Your task to perform on an android device: Open Google Chrome and click the shortcut for Amazon.com Image 0: 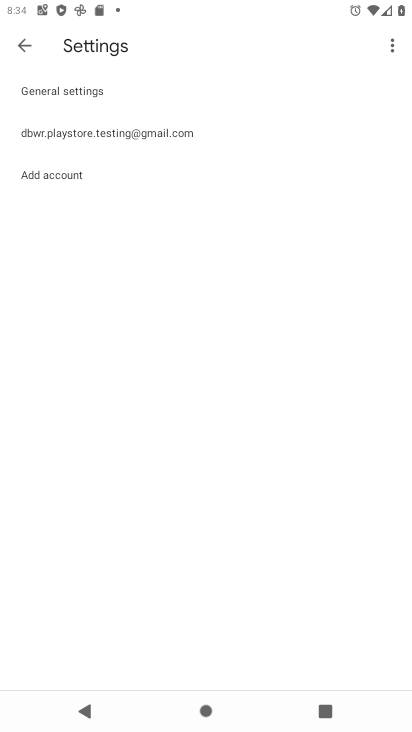
Step 0: press home button
Your task to perform on an android device: Open Google Chrome and click the shortcut for Amazon.com Image 1: 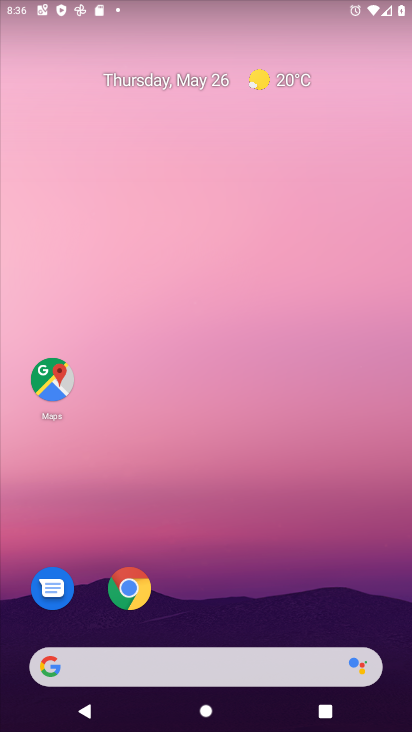
Step 1: drag from (273, 609) to (236, 40)
Your task to perform on an android device: Open Google Chrome and click the shortcut for Amazon.com Image 2: 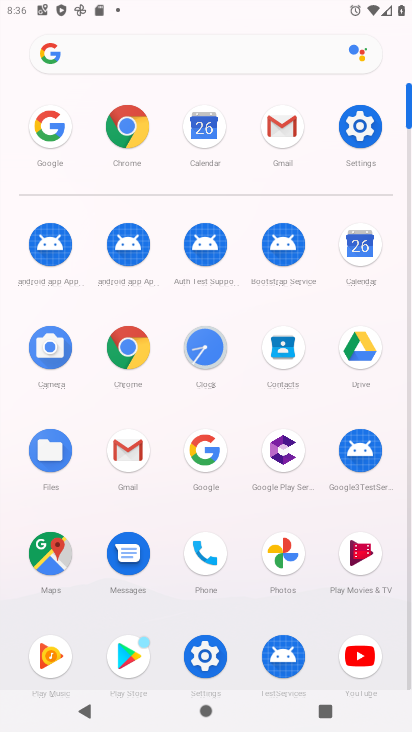
Step 2: click (142, 123)
Your task to perform on an android device: Open Google Chrome and click the shortcut for Amazon.com Image 3: 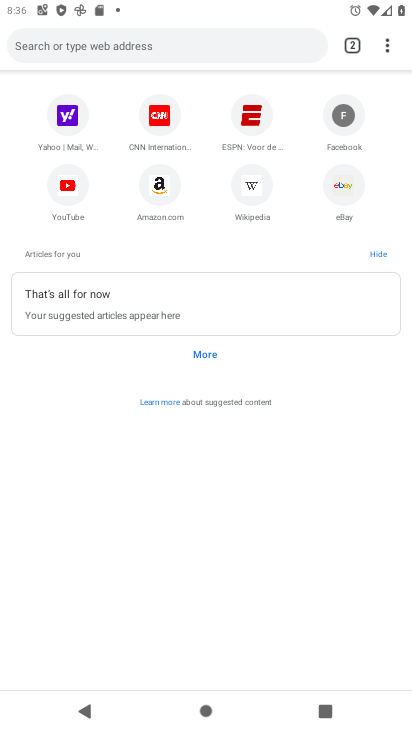
Step 3: click (151, 182)
Your task to perform on an android device: Open Google Chrome and click the shortcut for Amazon.com Image 4: 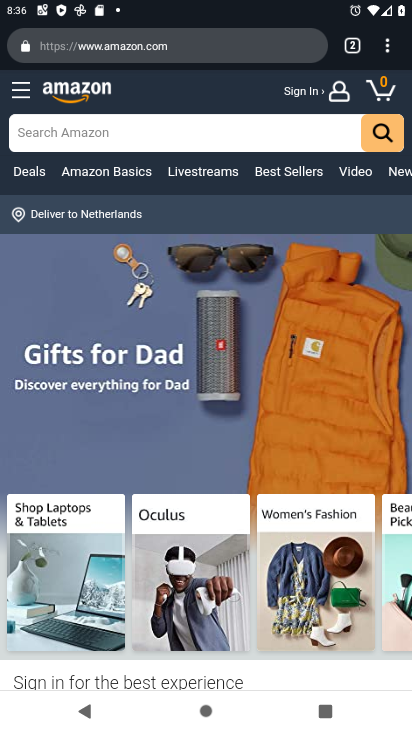
Step 4: task complete